Your task to perform on an android device: change the clock display to show seconds Image 0: 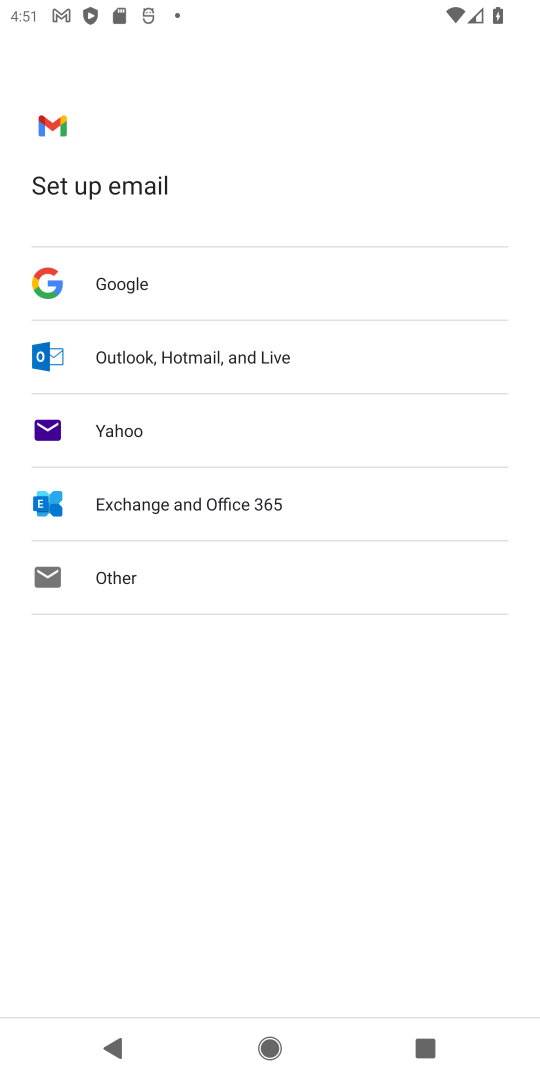
Step 0: press home button
Your task to perform on an android device: change the clock display to show seconds Image 1: 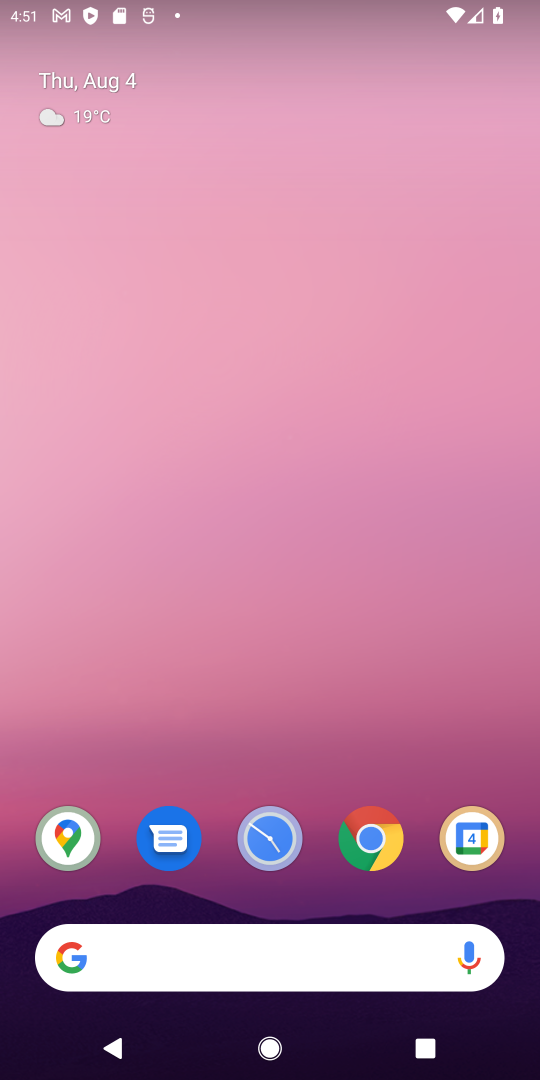
Step 1: drag from (340, 820) to (446, 0)
Your task to perform on an android device: change the clock display to show seconds Image 2: 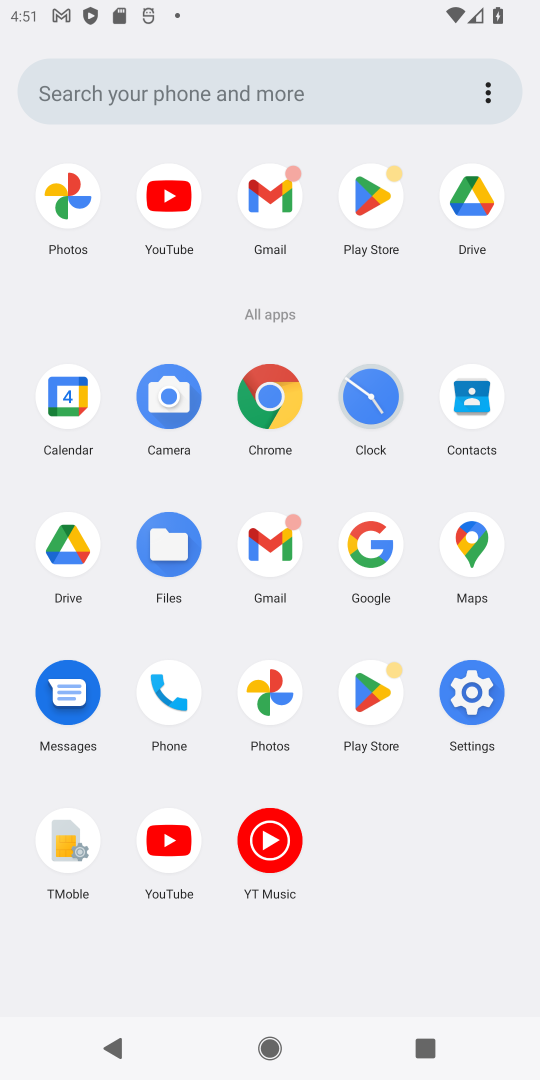
Step 2: click (373, 390)
Your task to perform on an android device: change the clock display to show seconds Image 3: 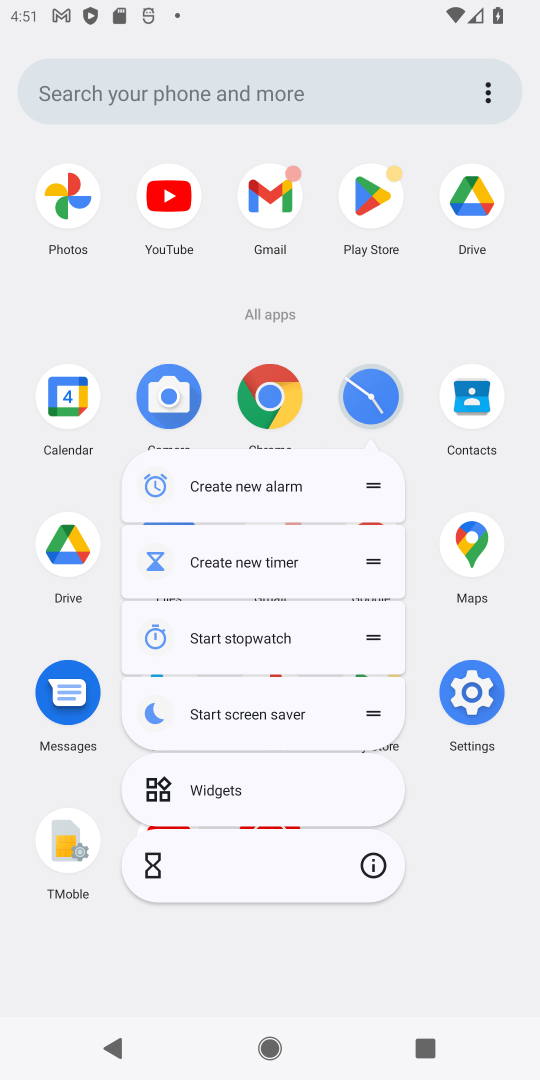
Step 3: click (373, 390)
Your task to perform on an android device: change the clock display to show seconds Image 4: 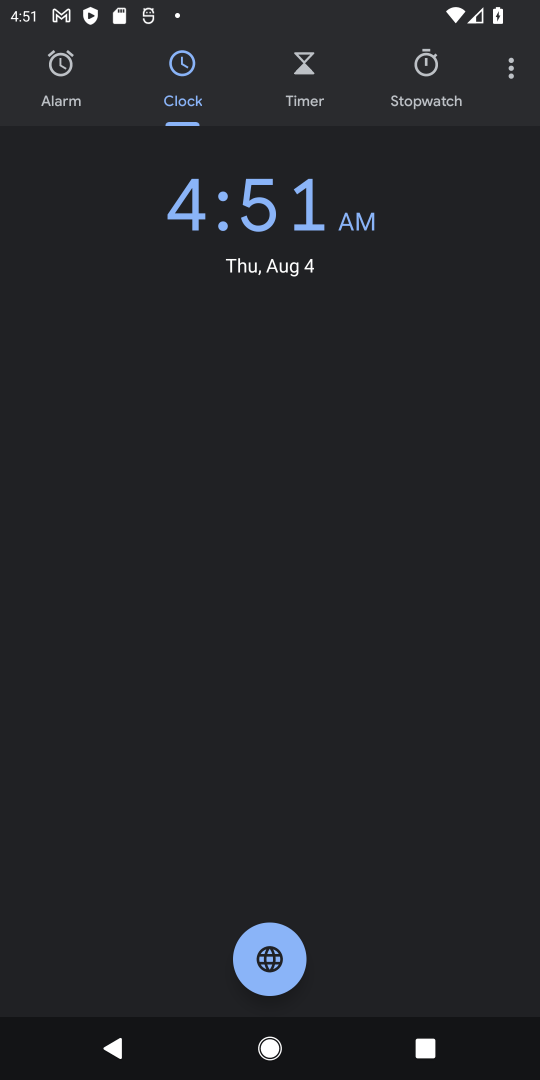
Step 4: click (509, 68)
Your task to perform on an android device: change the clock display to show seconds Image 5: 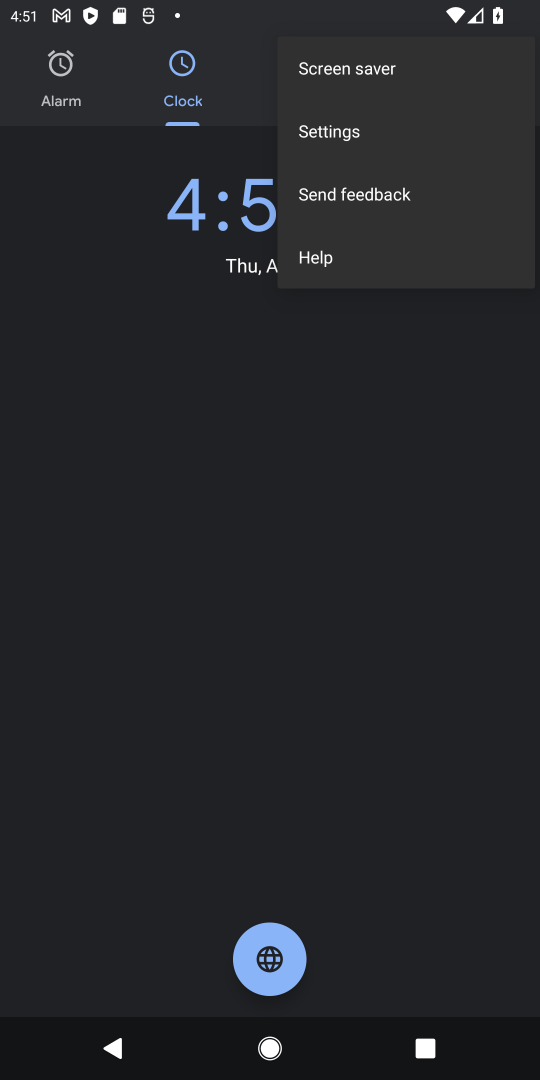
Step 5: click (330, 140)
Your task to perform on an android device: change the clock display to show seconds Image 6: 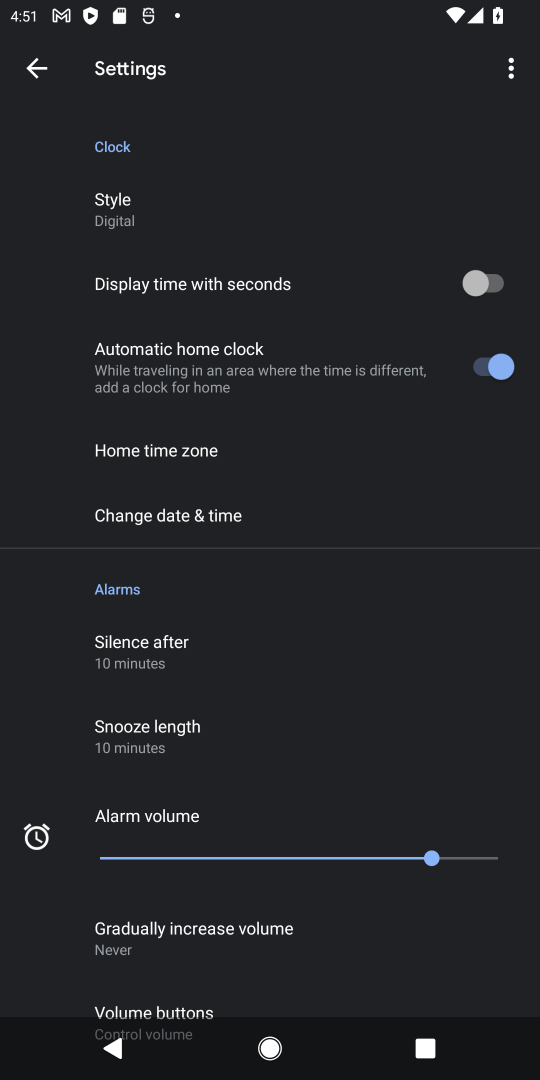
Step 6: click (487, 266)
Your task to perform on an android device: change the clock display to show seconds Image 7: 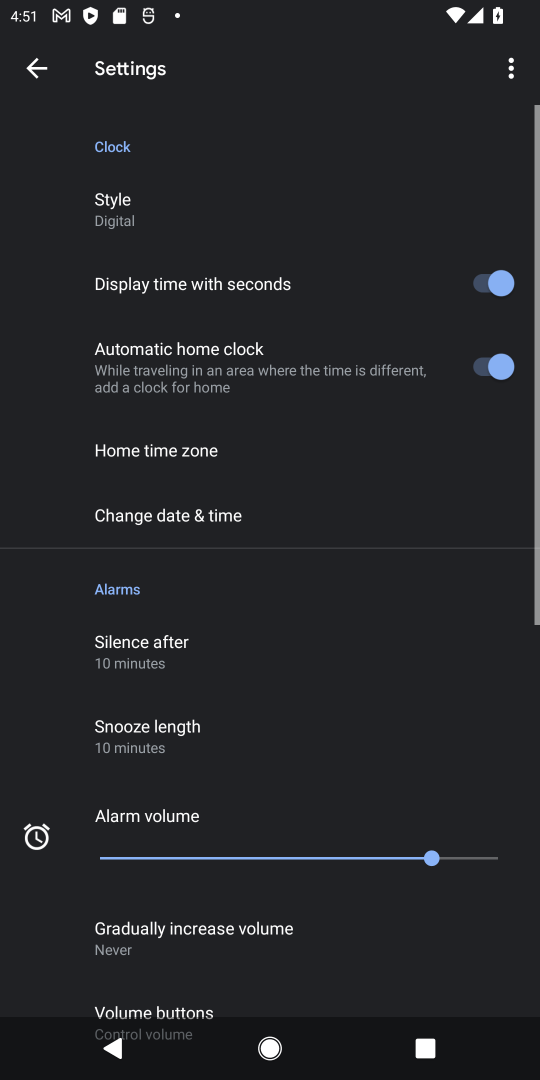
Step 7: task complete